Your task to perform on an android device: Check the news Image 0: 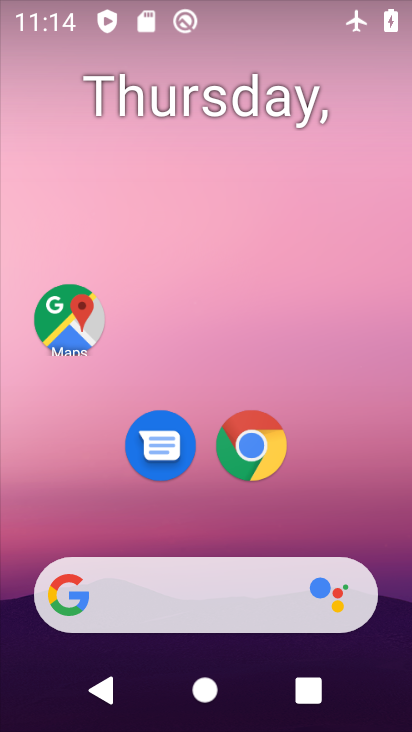
Step 0: drag from (195, 526) to (229, 150)
Your task to perform on an android device: Check the news Image 1: 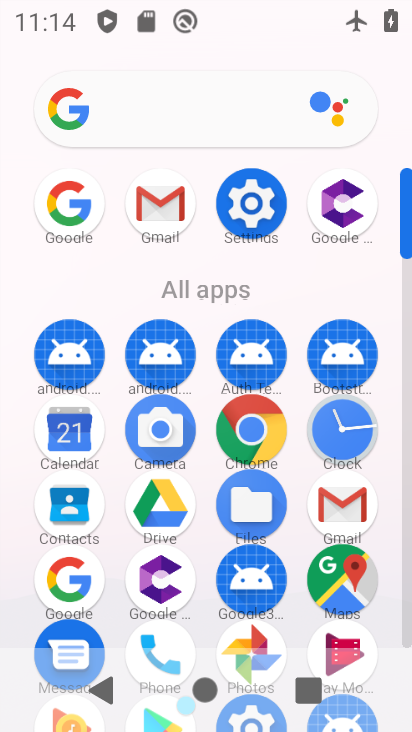
Step 1: click (75, 220)
Your task to perform on an android device: Check the news Image 2: 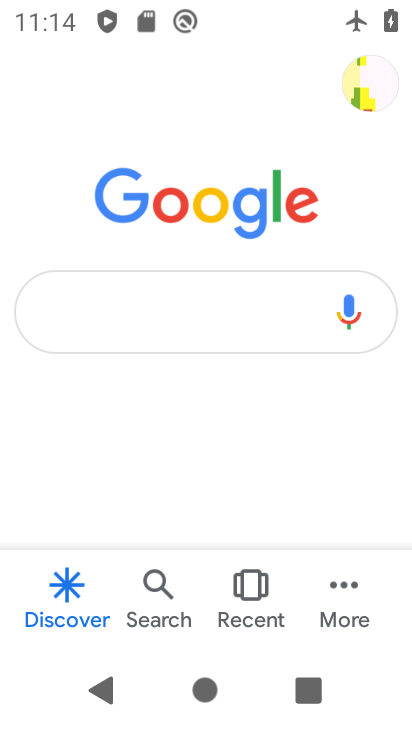
Step 2: click (150, 301)
Your task to perform on an android device: Check the news Image 3: 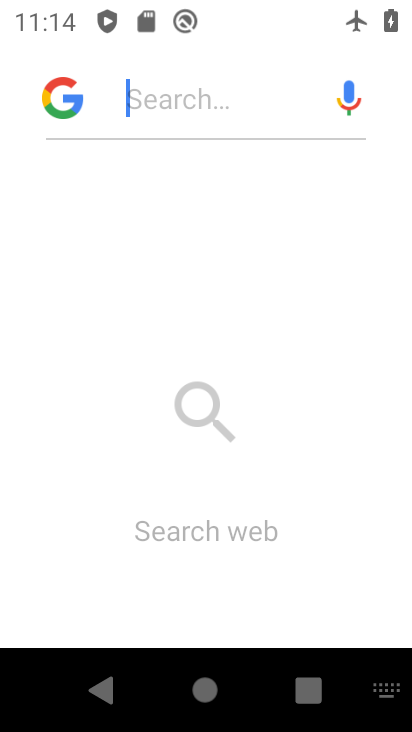
Step 3: type "news"
Your task to perform on an android device: Check the news Image 4: 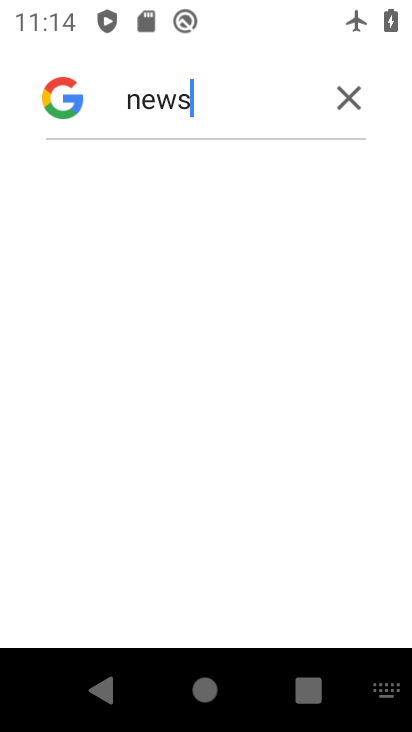
Step 4: task complete